Your task to perform on an android device: Go to internet settings Image 0: 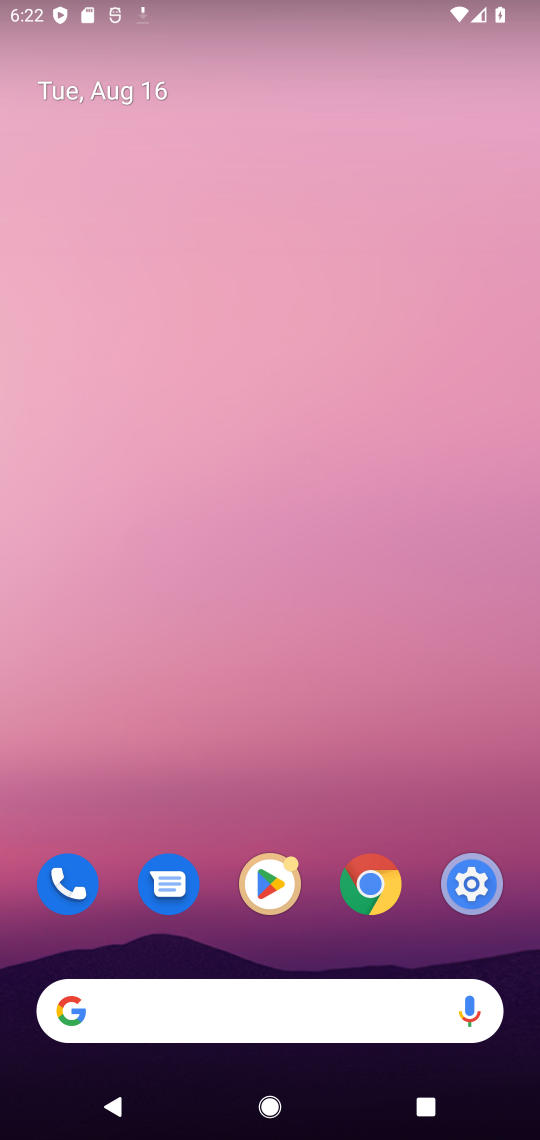
Step 0: click (481, 902)
Your task to perform on an android device: Go to internet settings Image 1: 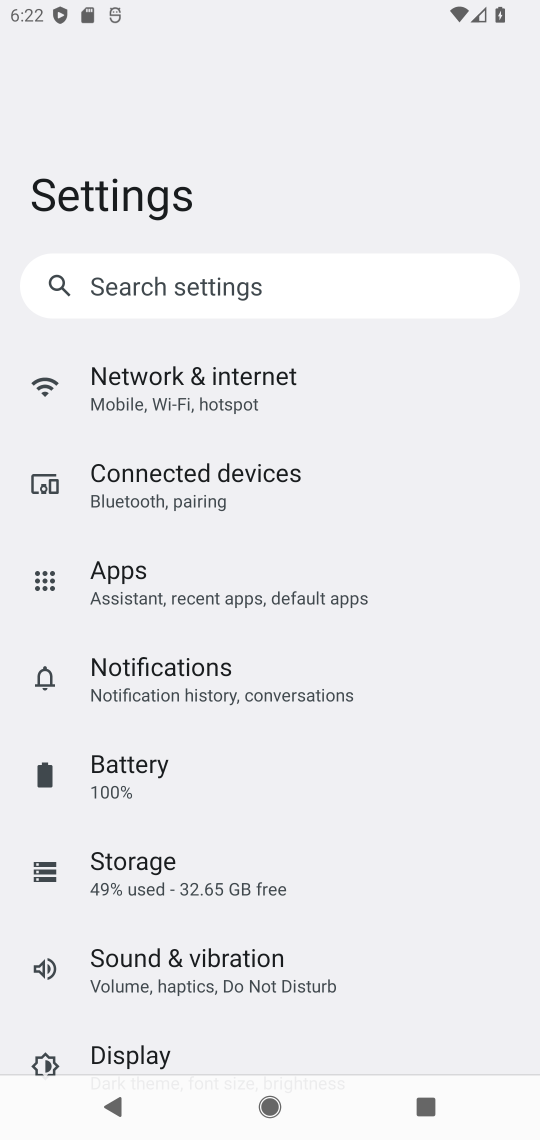
Step 1: click (164, 388)
Your task to perform on an android device: Go to internet settings Image 2: 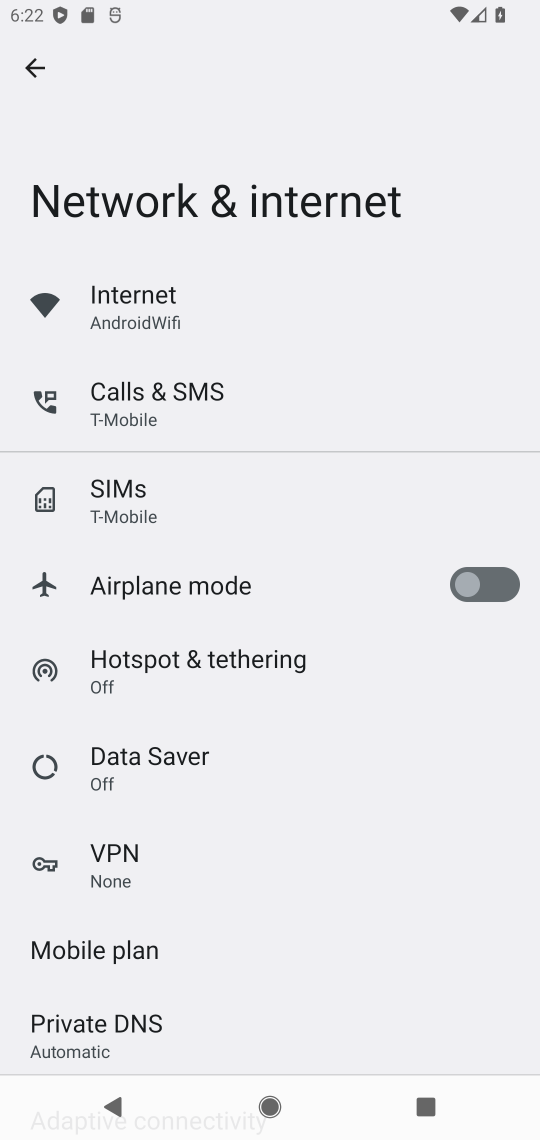
Step 2: click (132, 316)
Your task to perform on an android device: Go to internet settings Image 3: 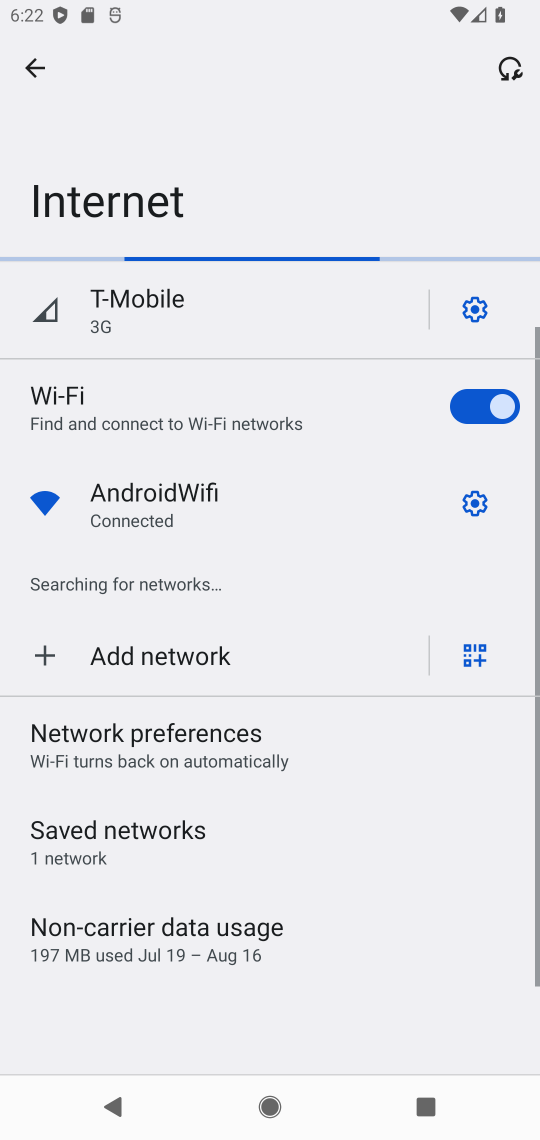
Step 3: task complete